Your task to perform on an android device: change keyboard looks Image 0: 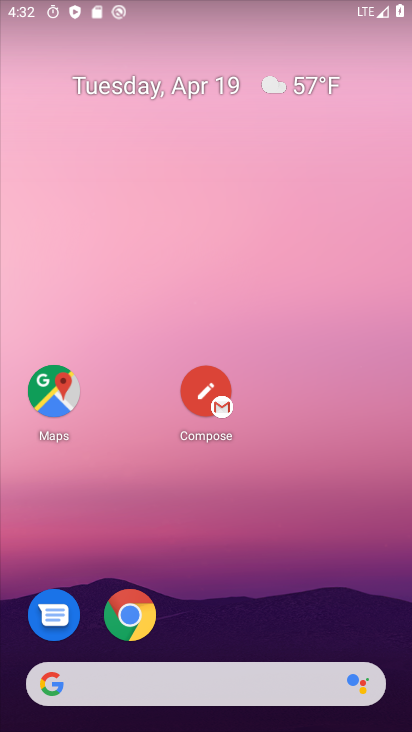
Step 0: drag from (269, 629) to (277, 50)
Your task to perform on an android device: change keyboard looks Image 1: 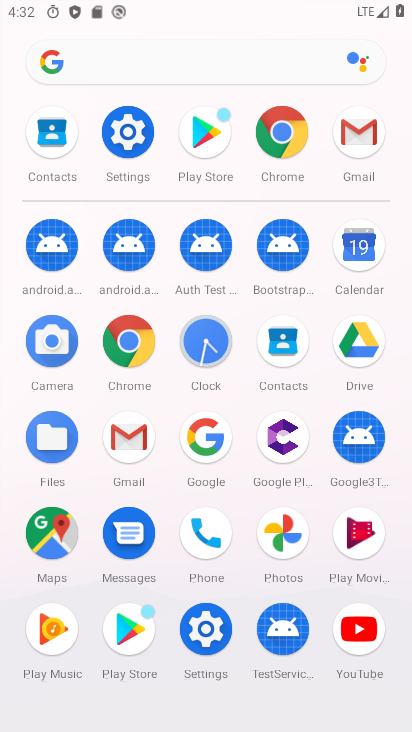
Step 1: click (115, 138)
Your task to perform on an android device: change keyboard looks Image 2: 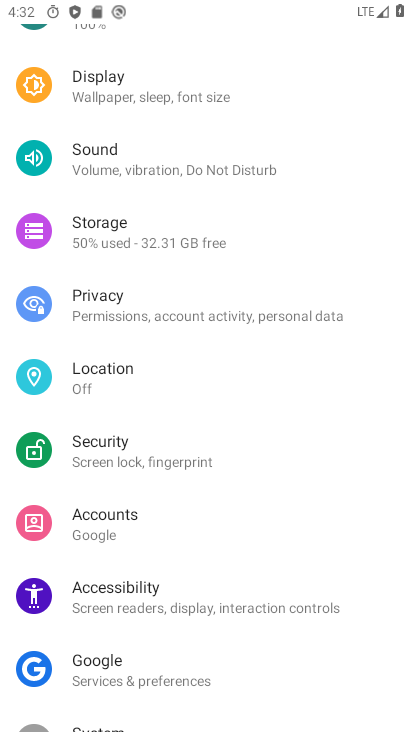
Step 2: drag from (276, 694) to (219, 186)
Your task to perform on an android device: change keyboard looks Image 3: 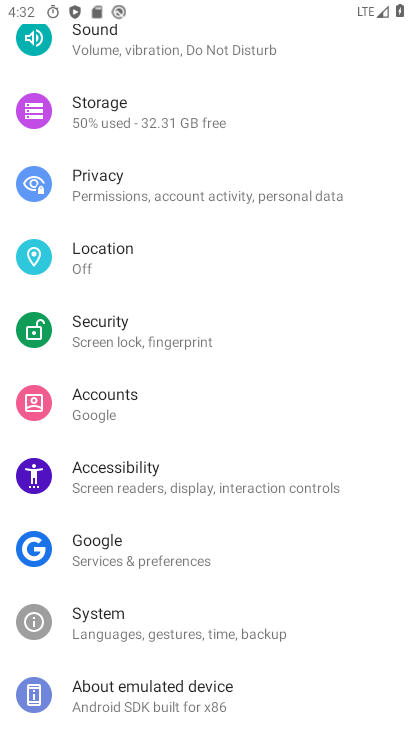
Step 3: click (217, 623)
Your task to perform on an android device: change keyboard looks Image 4: 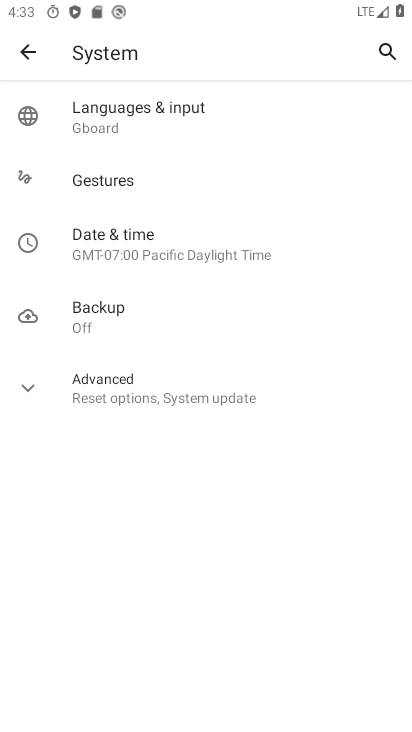
Step 4: click (163, 131)
Your task to perform on an android device: change keyboard looks Image 5: 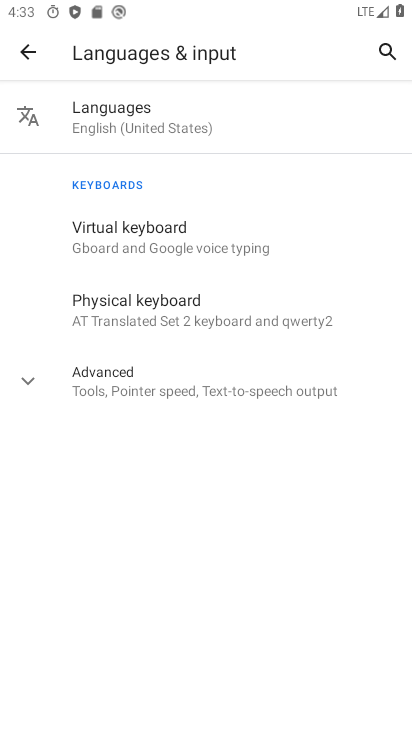
Step 5: click (142, 241)
Your task to perform on an android device: change keyboard looks Image 6: 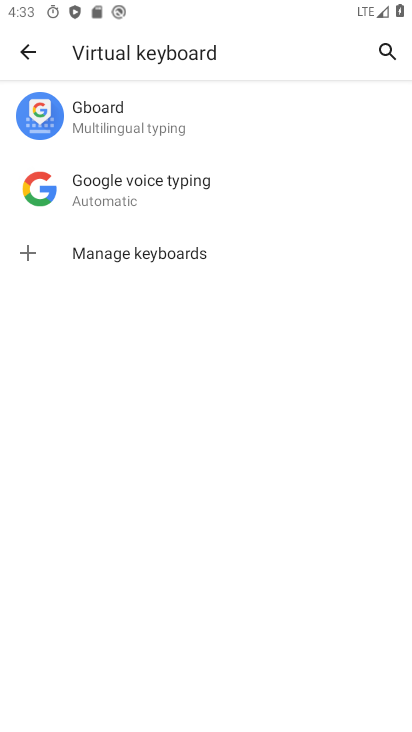
Step 6: click (149, 128)
Your task to perform on an android device: change keyboard looks Image 7: 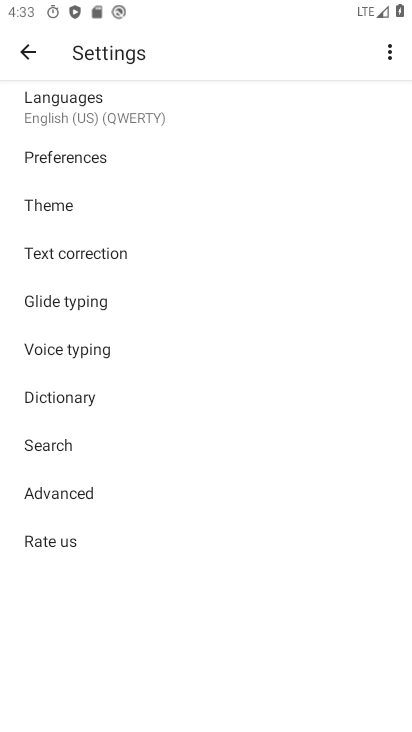
Step 7: click (82, 194)
Your task to perform on an android device: change keyboard looks Image 8: 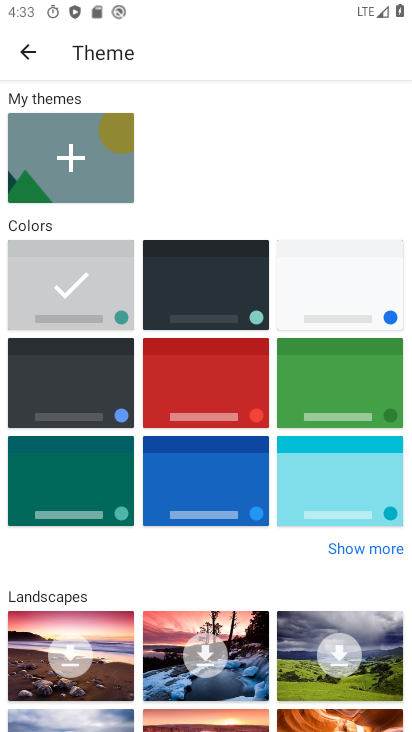
Step 8: click (210, 294)
Your task to perform on an android device: change keyboard looks Image 9: 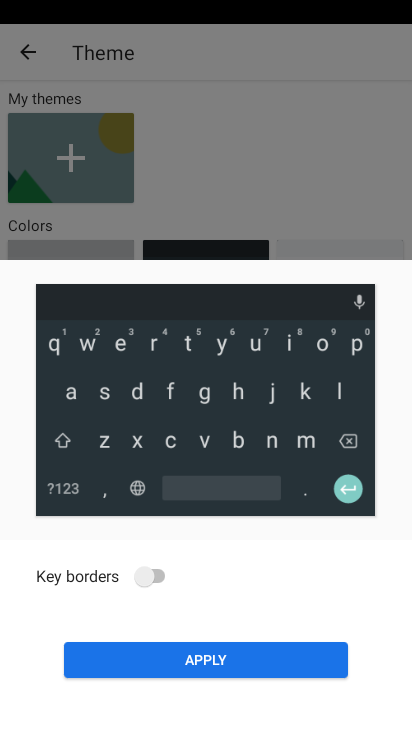
Step 9: click (229, 654)
Your task to perform on an android device: change keyboard looks Image 10: 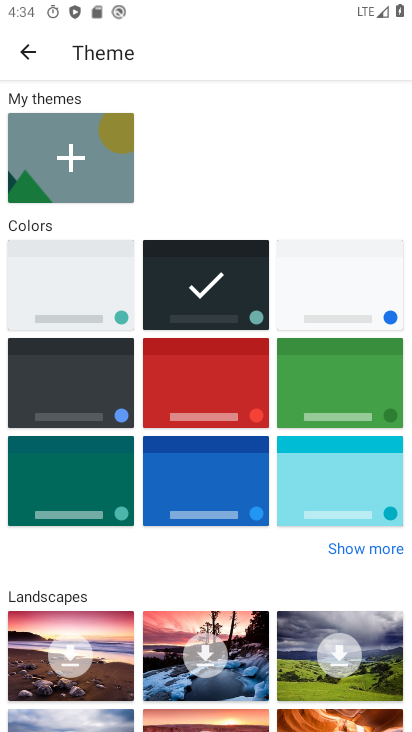
Step 10: task complete